Your task to perform on an android device: Open the phone app and click the voicemail tab. Image 0: 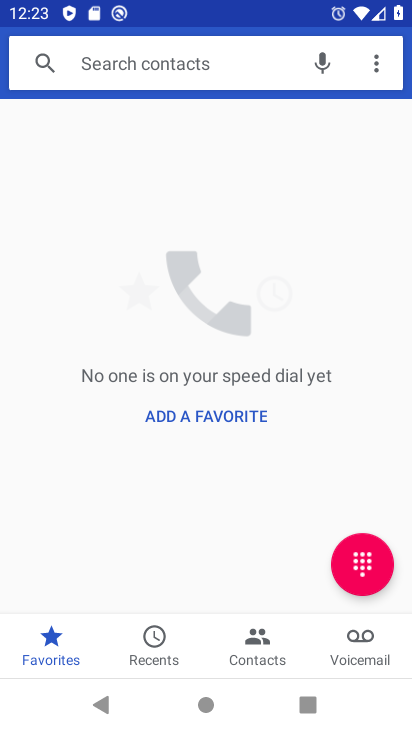
Step 0: click (372, 652)
Your task to perform on an android device: Open the phone app and click the voicemail tab. Image 1: 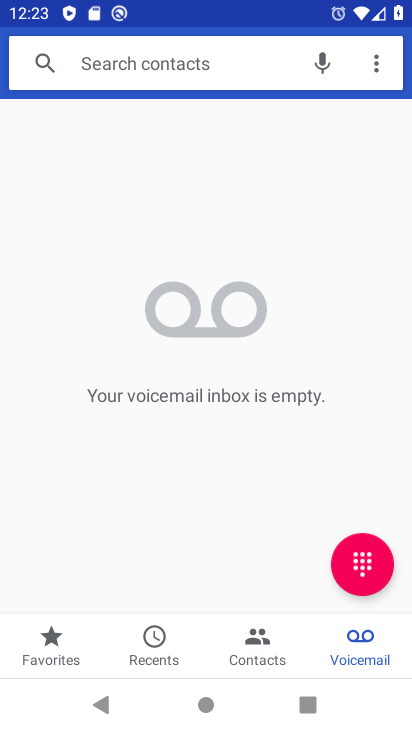
Step 1: task complete